Your task to perform on an android device: Open sound settings Image 0: 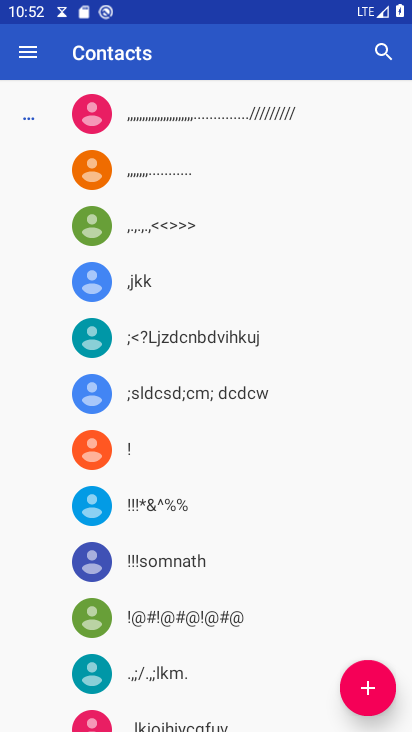
Step 0: drag from (146, 620) to (291, 208)
Your task to perform on an android device: Open sound settings Image 1: 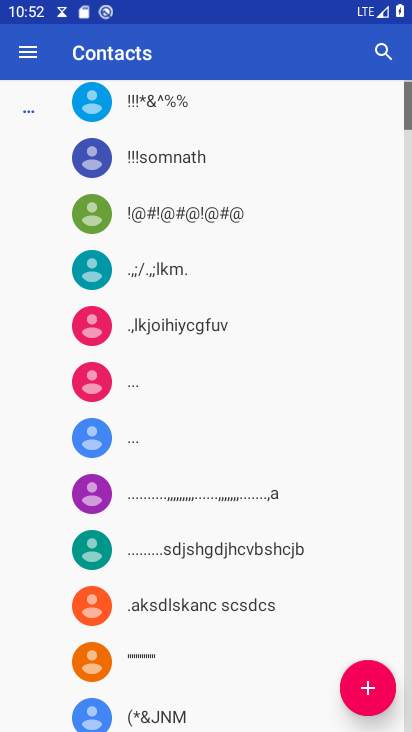
Step 1: drag from (278, 161) to (266, 644)
Your task to perform on an android device: Open sound settings Image 2: 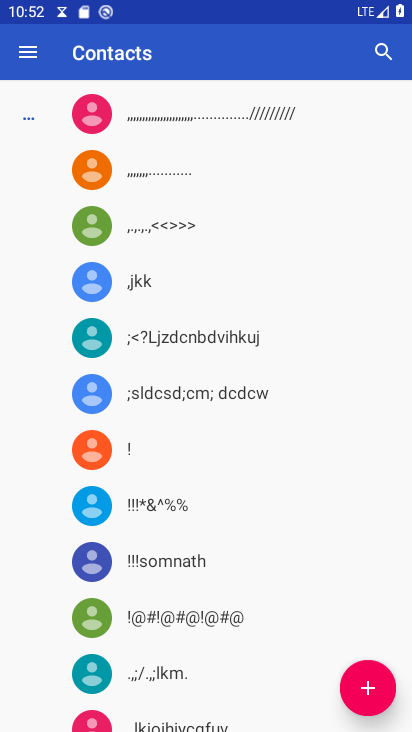
Step 2: drag from (224, 260) to (309, 701)
Your task to perform on an android device: Open sound settings Image 3: 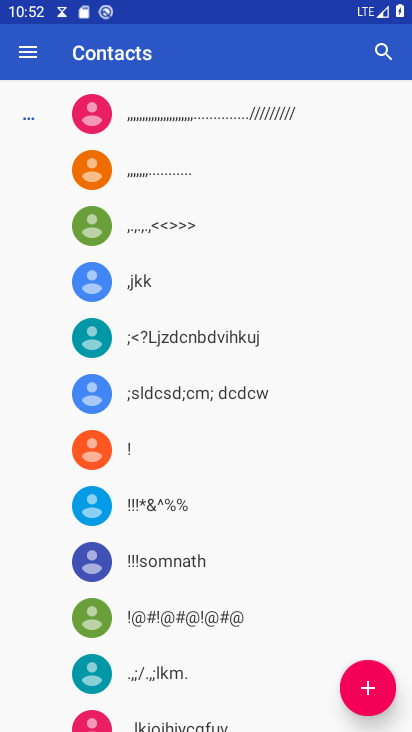
Step 3: drag from (207, 265) to (247, 597)
Your task to perform on an android device: Open sound settings Image 4: 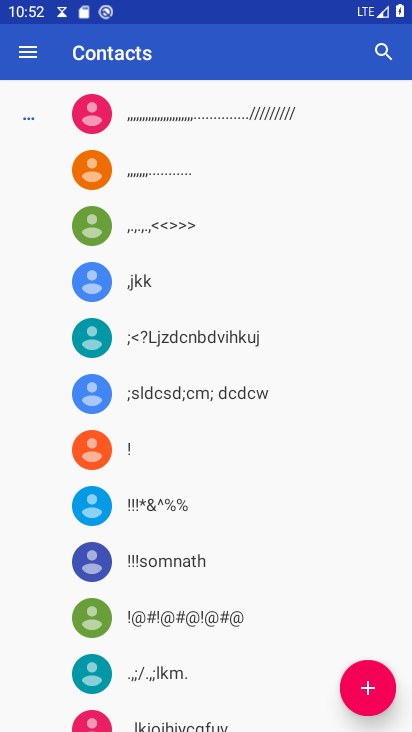
Step 4: drag from (250, 301) to (298, 731)
Your task to perform on an android device: Open sound settings Image 5: 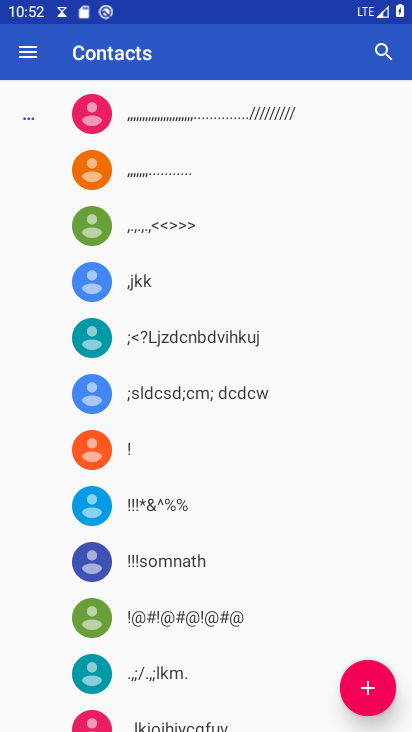
Step 5: press home button
Your task to perform on an android device: Open sound settings Image 6: 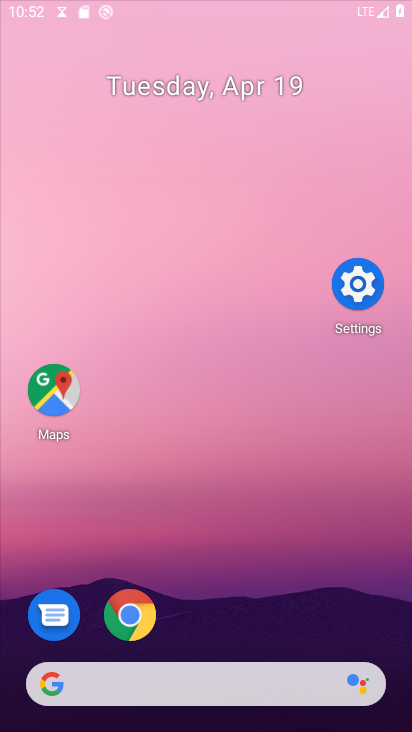
Step 6: drag from (196, 652) to (239, 274)
Your task to perform on an android device: Open sound settings Image 7: 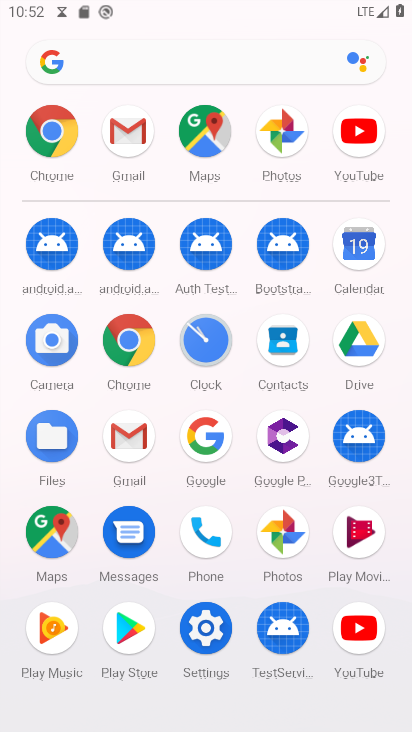
Step 7: click (212, 627)
Your task to perform on an android device: Open sound settings Image 8: 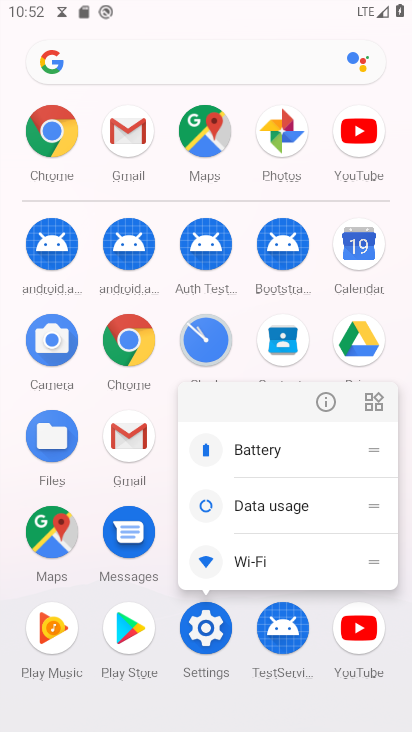
Step 8: click (330, 396)
Your task to perform on an android device: Open sound settings Image 9: 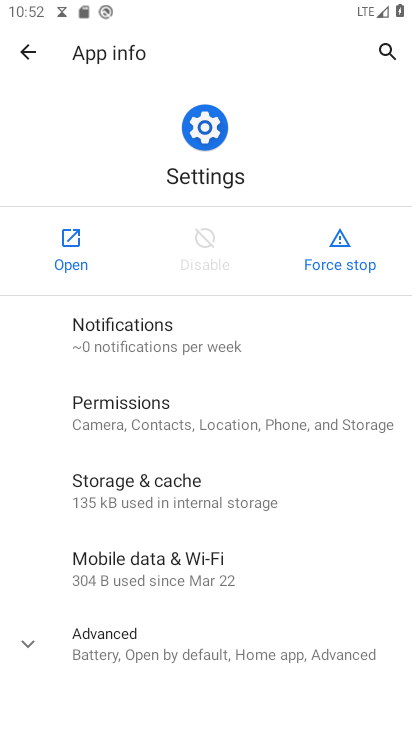
Step 9: click (66, 246)
Your task to perform on an android device: Open sound settings Image 10: 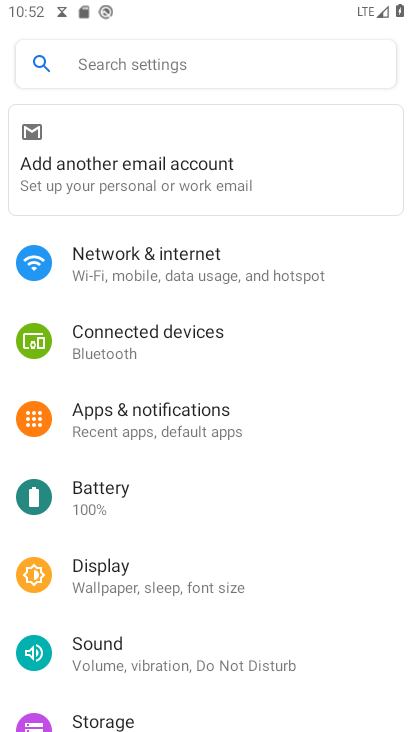
Step 10: drag from (242, 581) to (299, 79)
Your task to perform on an android device: Open sound settings Image 11: 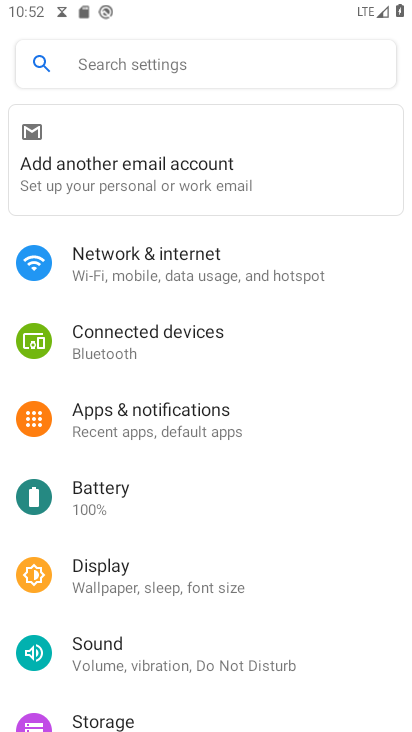
Step 11: click (172, 343)
Your task to perform on an android device: Open sound settings Image 12: 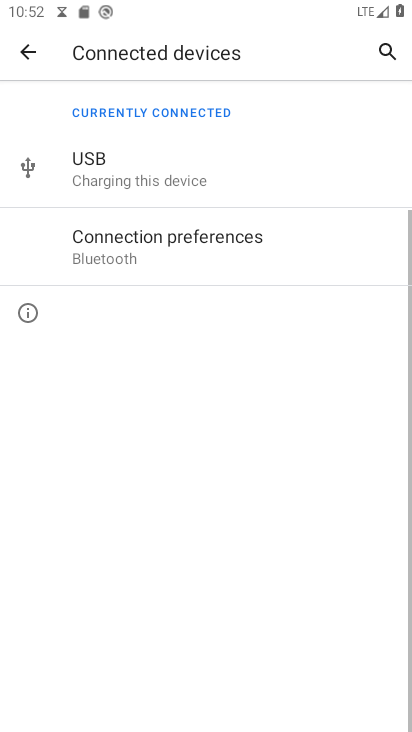
Step 12: drag from (227, 426) to (255, 197)
Your task to perform on an android device: Open sound settings Image 13: 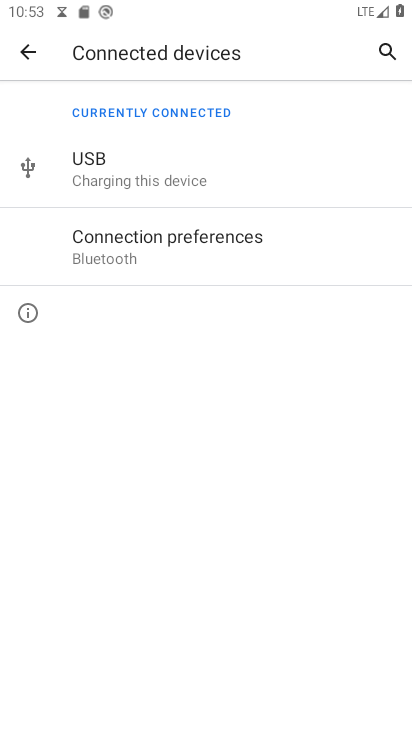
Step 13: drag from (203, 197) to (198, 119)
Your task to perform on an android device: Open sound settings Image 14: 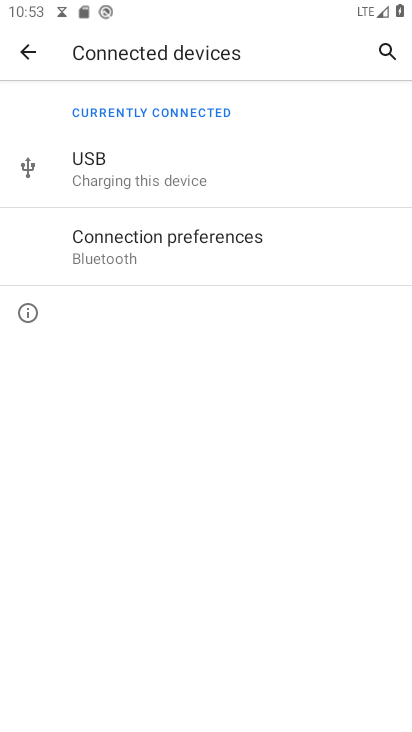
Step 14: drag from (174, 257) to (186, 188)
Your task to perform on an android device: Open sound settings Image 15: 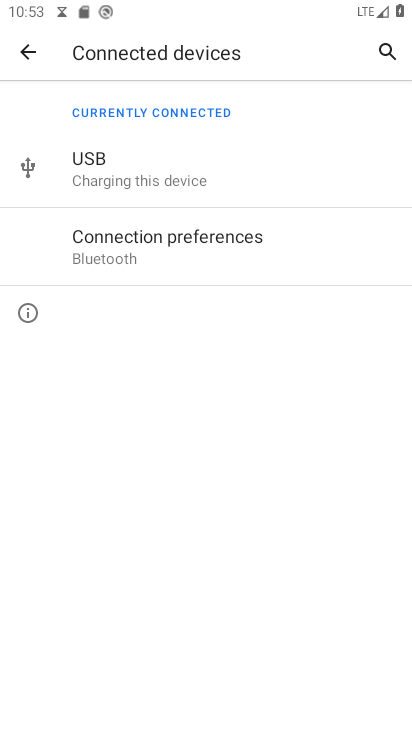
Step 15: drag from (250, 322) to (271, 256)
Your task to perform on an android device: Open sound settings Image 16: 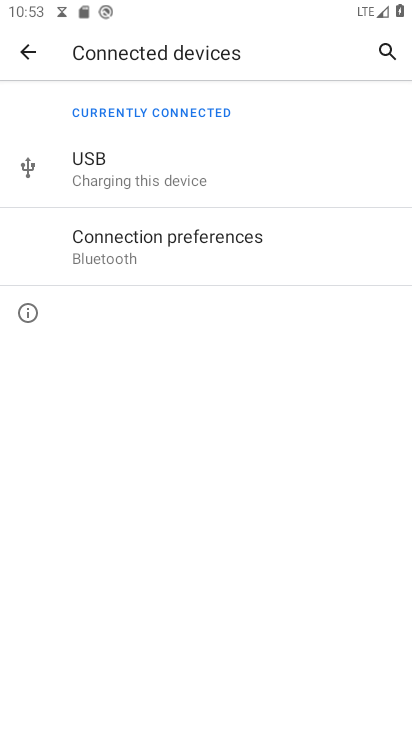
Step 16: drag from (227, 172) to (263, 583)
Your task to perform on an android device: Open sound settings Image 17: 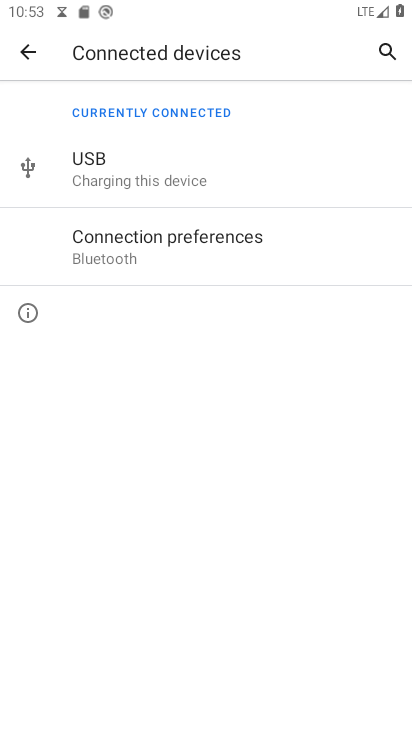
Step 17: drag from (159, 159) to (292, 573)
Your task to perform on an android device: Open sound settings Image 18: 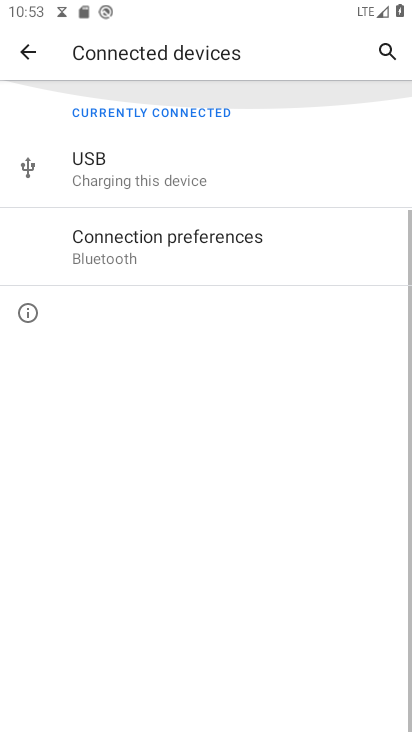
Step 18: drag from (198, 356) to (290, 156)
Your task to perform on an android device: Open sound settings Image 19: 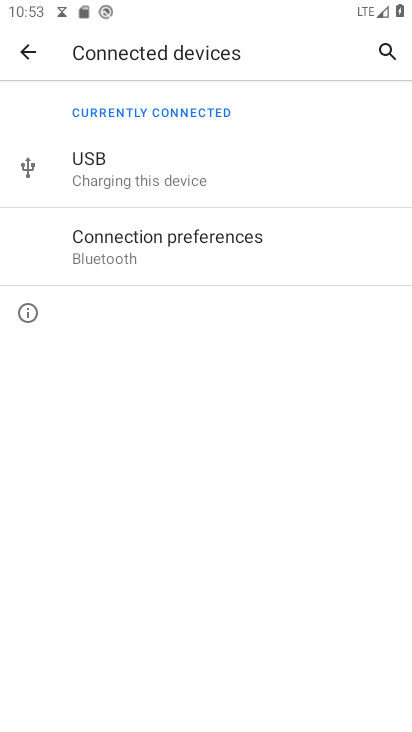
Step 19: drag from (234, 164) to (232, 565)
Your task to perform on an android device: Open sound settings Image 20: 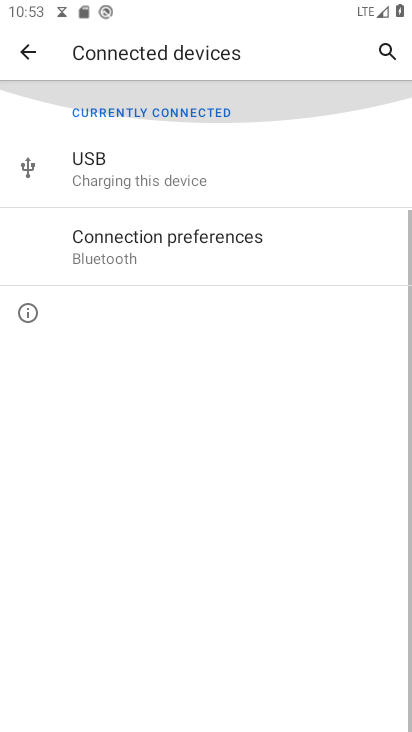
Step 20: drag from (172, 347) to (231, 229)
Your task to perform on an android device: Open sound settings Image 21: 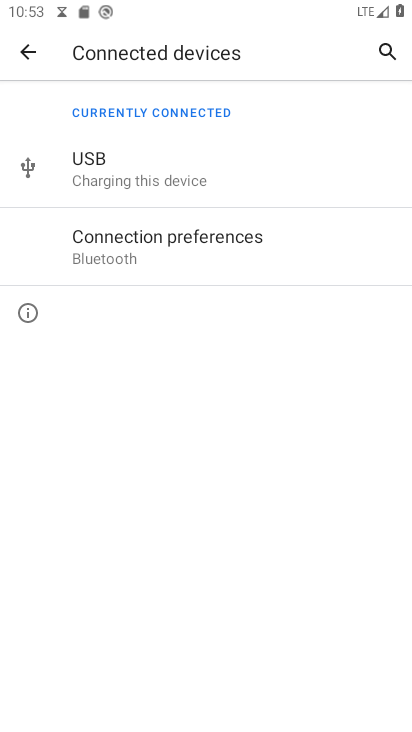
Step 21: drag from (172, 225) to (339, 724)
Your task to perform on an android device: Open sound settings Image 22: 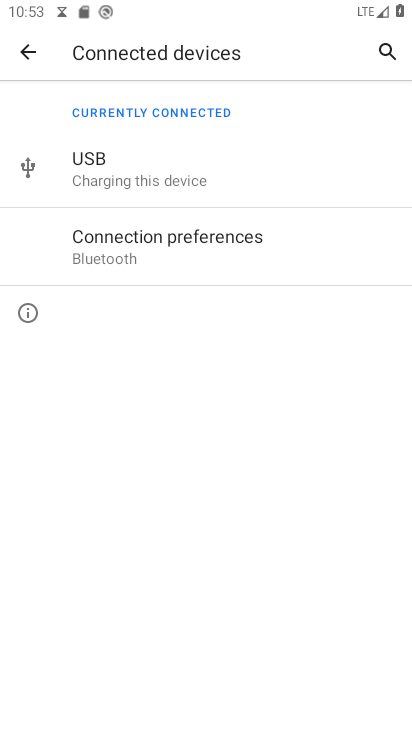
Step 22: click (25, 46)
Your task to perform on an android device: Open sound settings Image 23: 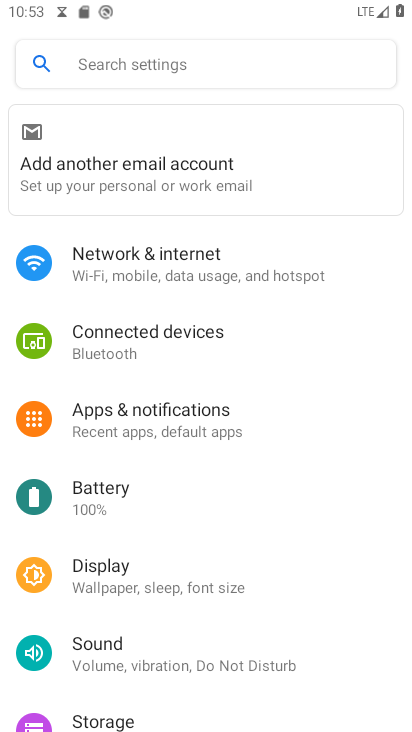
Step 23: click (150, 667)
Your task to perform on an android device: Open sound settings Image 24: 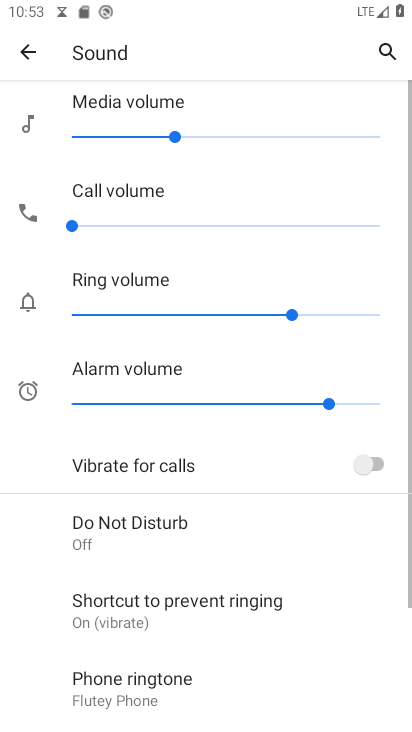
Step 24: task complete